Your task to perform on an android device: Show me popular videos on Youtube Image 0: 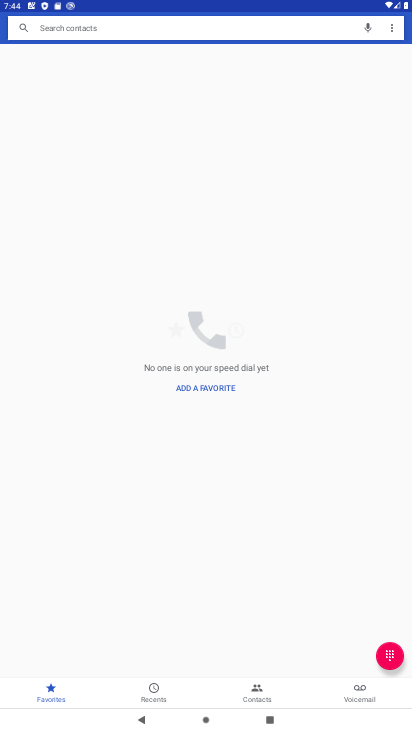
Step 0: press home button
Your task to perform on an android device: Show me popular videos on Youtube Image 1: 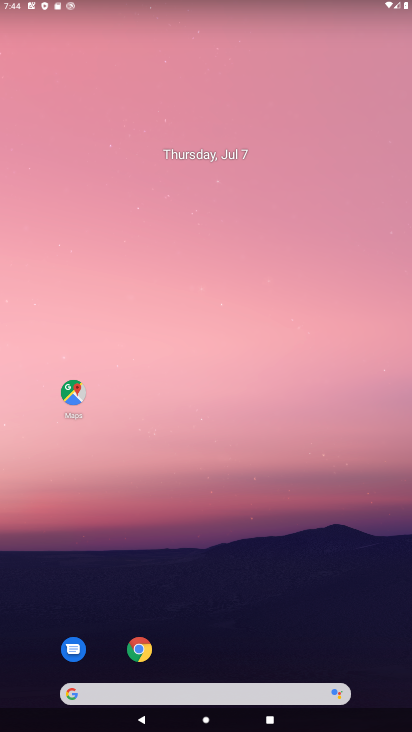
Step 1: drag from (221, 596) to (241, 190)
Your task to perform on an android device: Show me popular videos on Youtube Image 2: 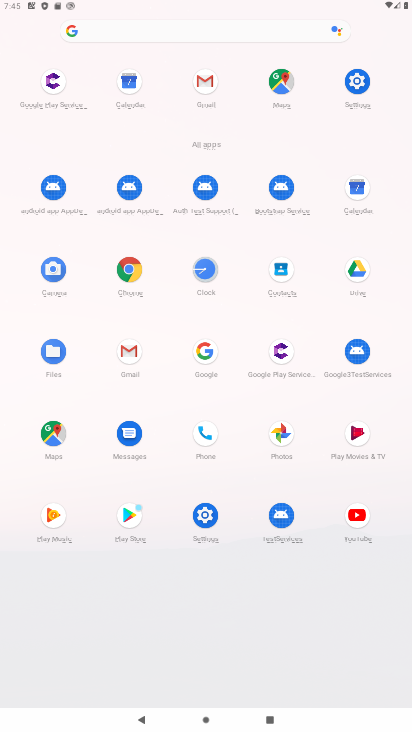
Step 2: click (360, 519)
Your task to perform on an android device: Show me popular videos on Youtube Image 3: 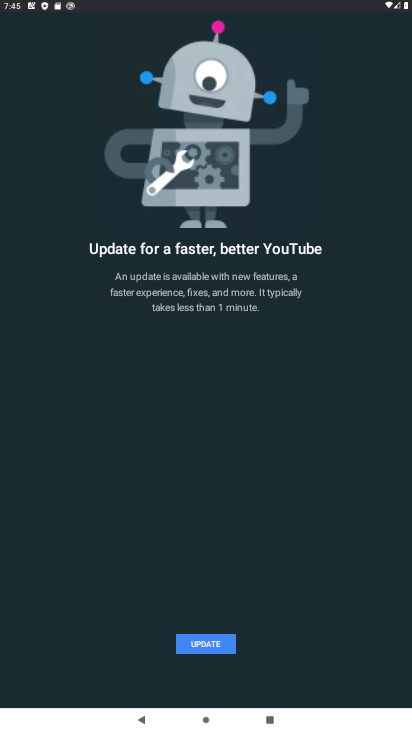
Step 3: click (201, 645)
Your task to perform on an android device: Show me popular videos on Youtube Image 4: 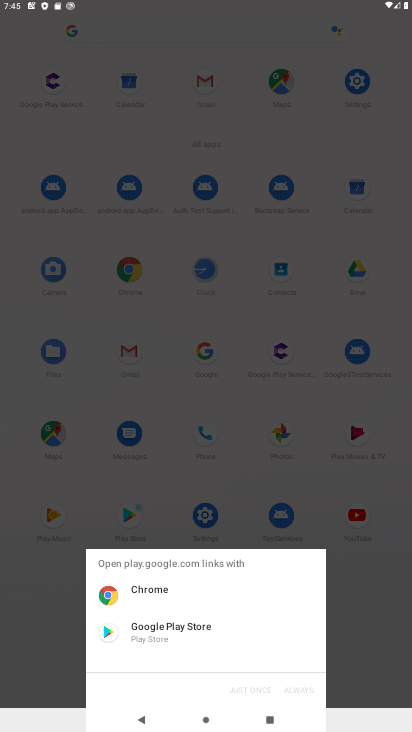
Step 4: click (179, 630)
Your task to perform on an android device: Show me popular videos on Youtube Image 5: 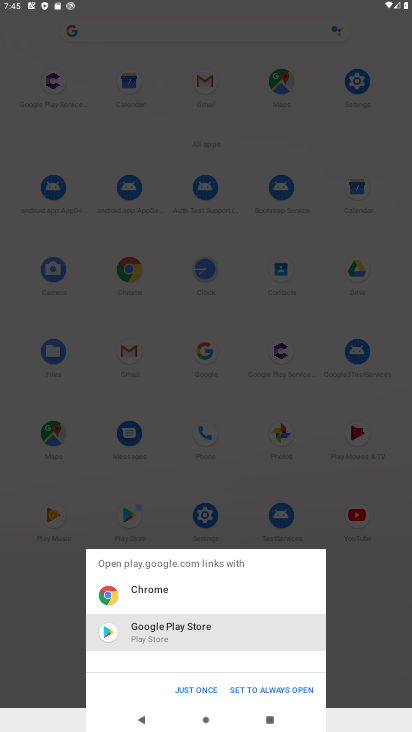
Step 5: click (189, 691)
Your task to perform on an android device: Show me popular videos on Youtube Image 6: 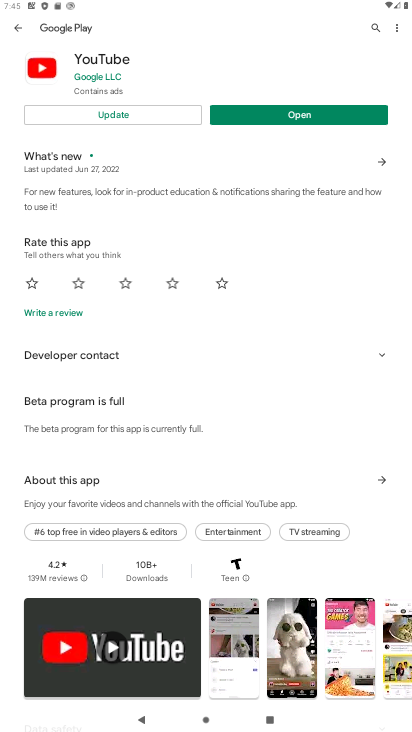
Step 6: click (128, 112)
Your task to perform on an android device: Show me popular videos on Youtube Image 7: 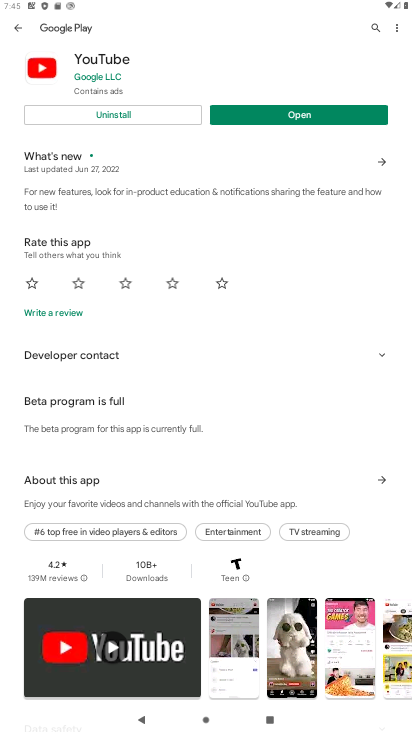
Step 7: click (285, 105)
Your task to perform on an android device: Show me popular videos on Youtube Image 8: 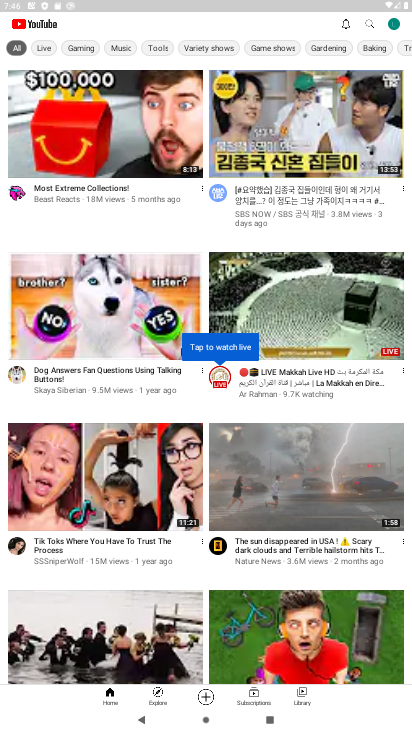
Step 8: drag from (59, 88) to (45, 277)
Your task to perform on an android device: Show me popular videos on Youtube Image 9: 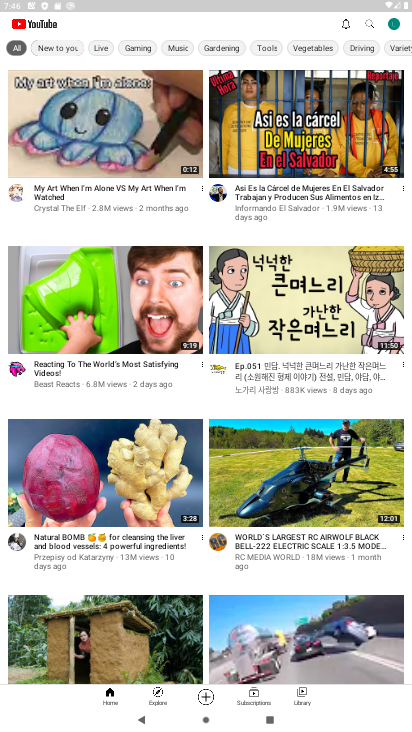
Step 9: click (15, 47)
Your task to perform on an android device: Show me popular videos on Youtube Image 10: 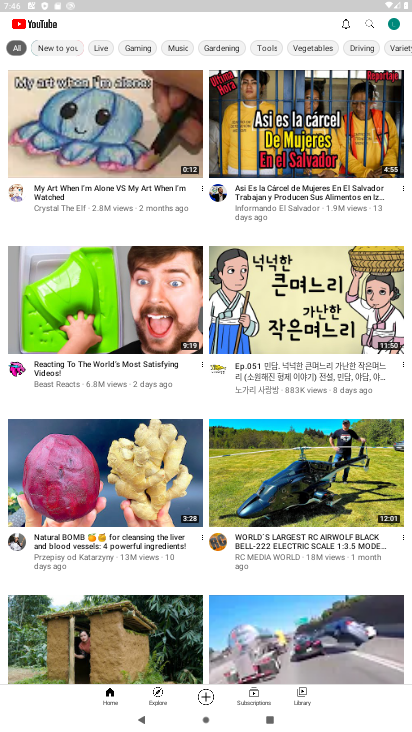
Step 10: click (18, 45)
Your task to perform on an android device: Show me popular videos on Youtube Image 11: 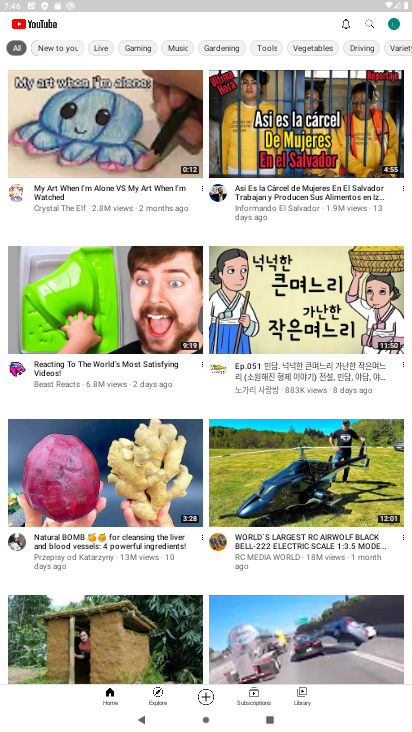
Step 11: drag from (33, 54) to (27, 342)
Your task to perform on an android device: Show me popular videos on Youtube Image 12: 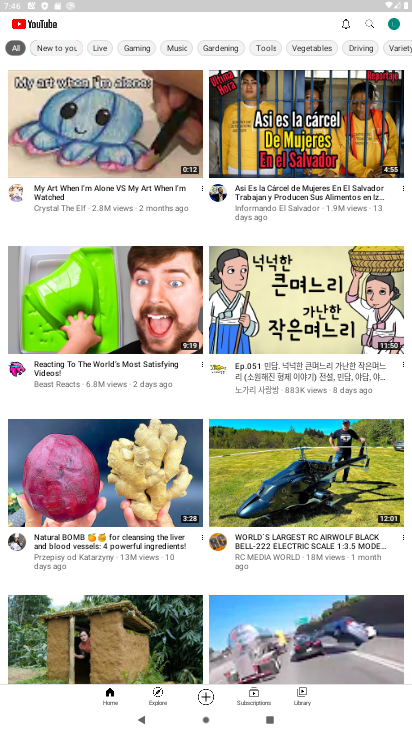
Step 12: click (162, 695)
Your task to perform on an android device: Show me popular videos on Youtube Image 13: 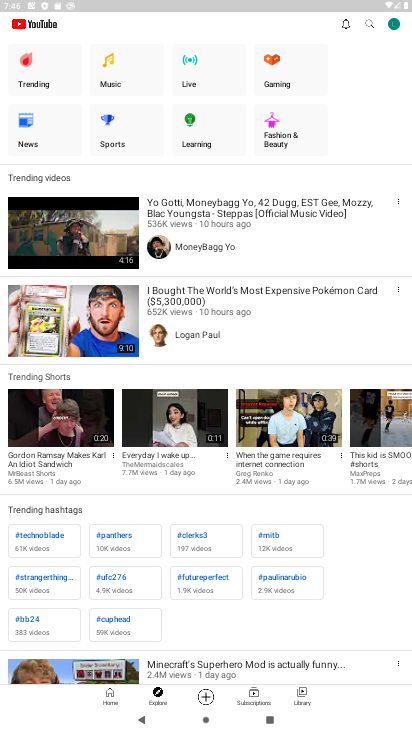
Step 13: click (27, 78)
Your task to perform on an android device: Show me popular videos on Youtube Image 14: 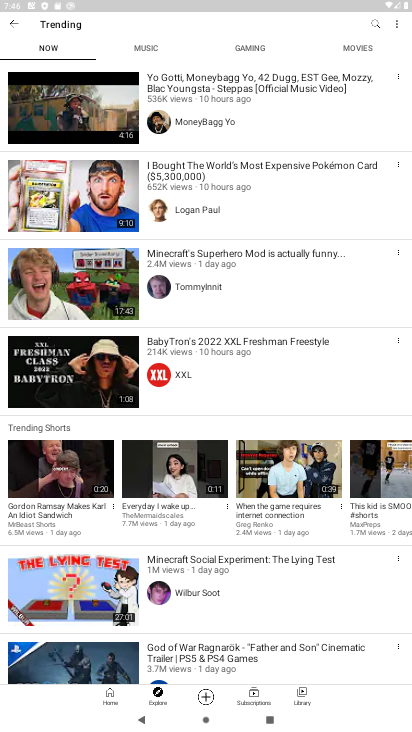
Step 14: task complete